Your task to perform on an android device: Show the shopping cart on walmart. Add "amazon basics triple a" to the cart on walmart, then select checkout. Image 0: 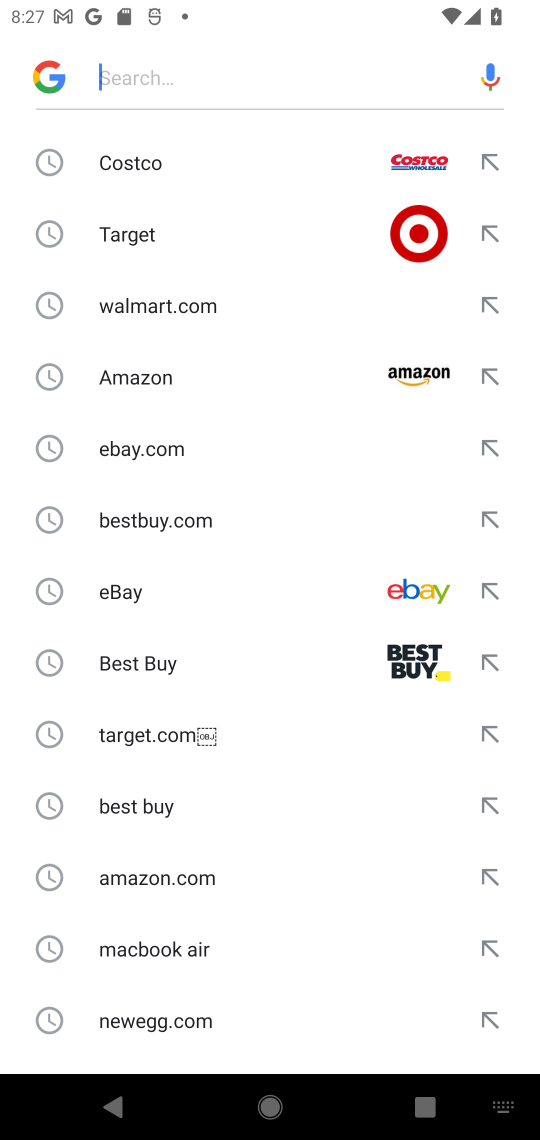
Step 0: press home button
Your task to perform on an android device: Show the shopping cart on walmart. Add "amazon basics triple a" to the cart on walmart, then select checkout. Image 1: 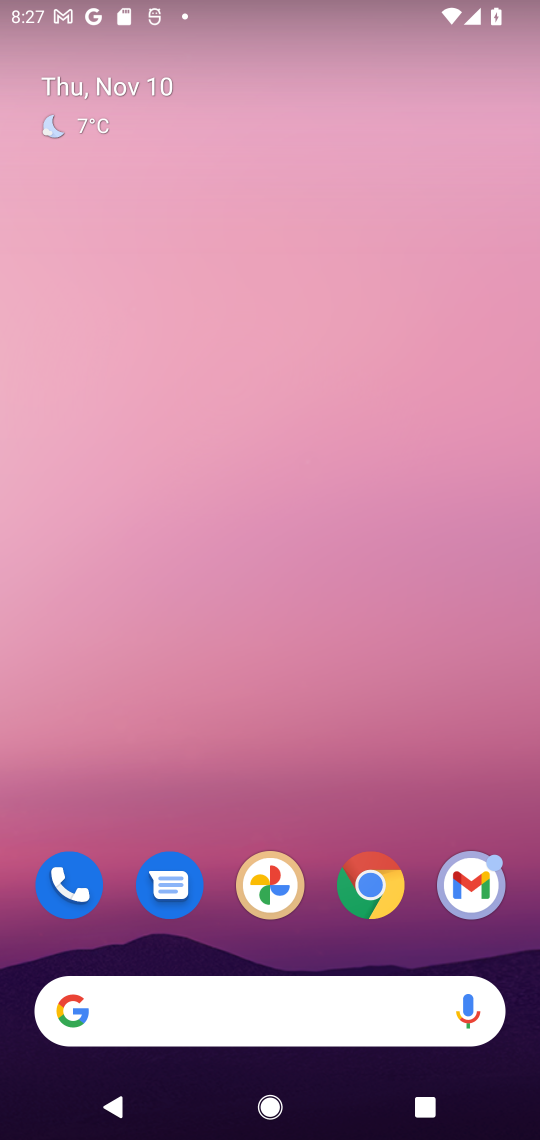
Step 1: click (380, 875)
Your task to perform on an android device: Show the shopping cart on walmart. Add "amazon basics triple a" to the cart on walmart, then select checkout. Image 2: 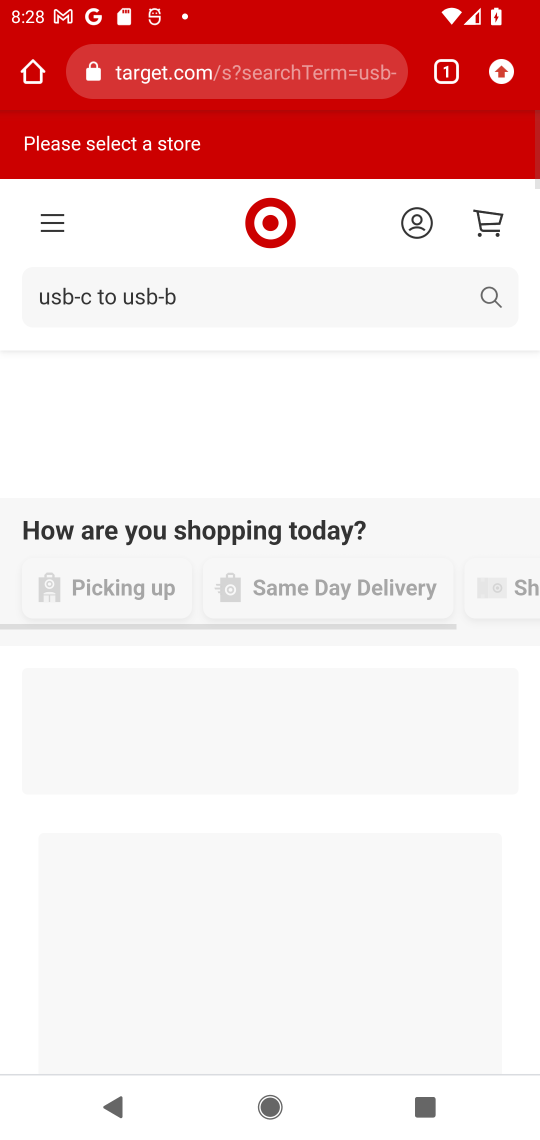
Step 2: click (334, 73)
Your task to perform on an android device: Show the shopping cart on walmart. Add "amazon basics triple a" to the cart on walmart, then select checkout. Image 3: 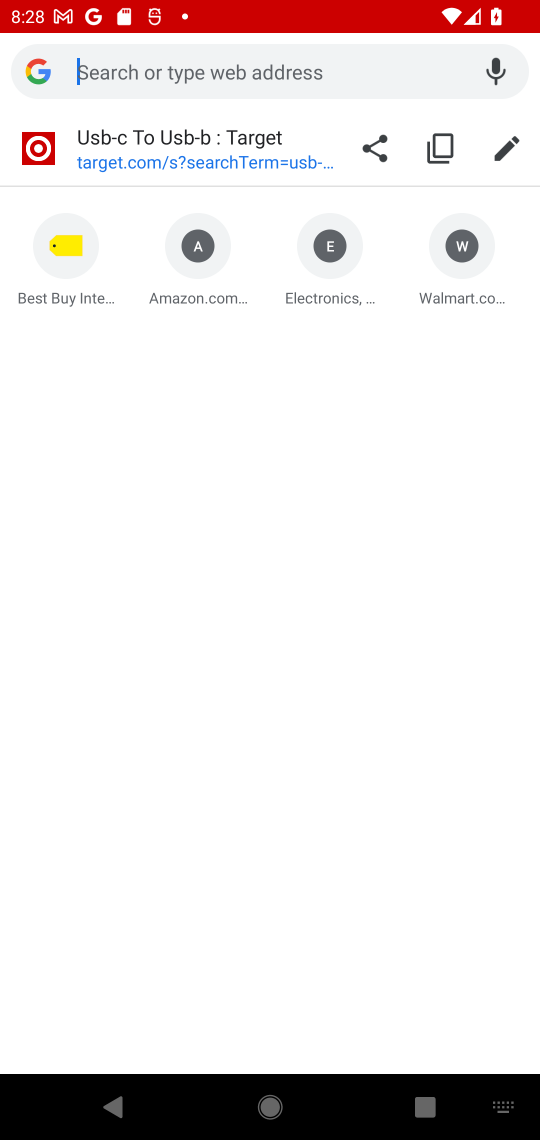
Step 3: click (453, 247)
Your task to perform on an android device: Show the shopping cart on walmart. Add "amazon basics triple a" to the cart on walmart, then select checkout. Image 4: 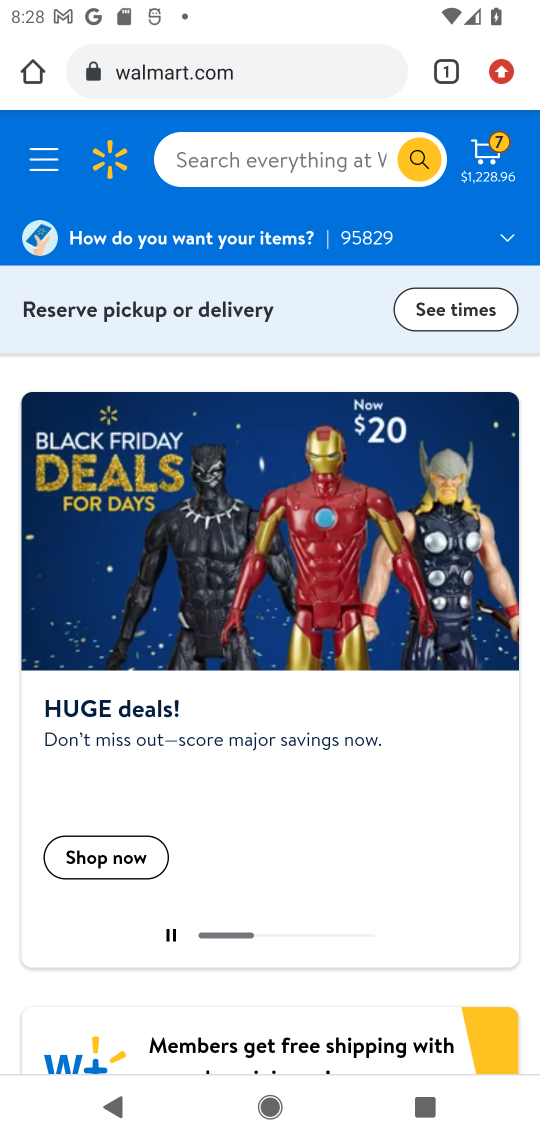
Step 4: click (477, 161)
Your task to perform on an android device: Show the shopping cart on walmart. Add "amazon basics triple a" to the cart on walmart, then select checkout. Image 5: 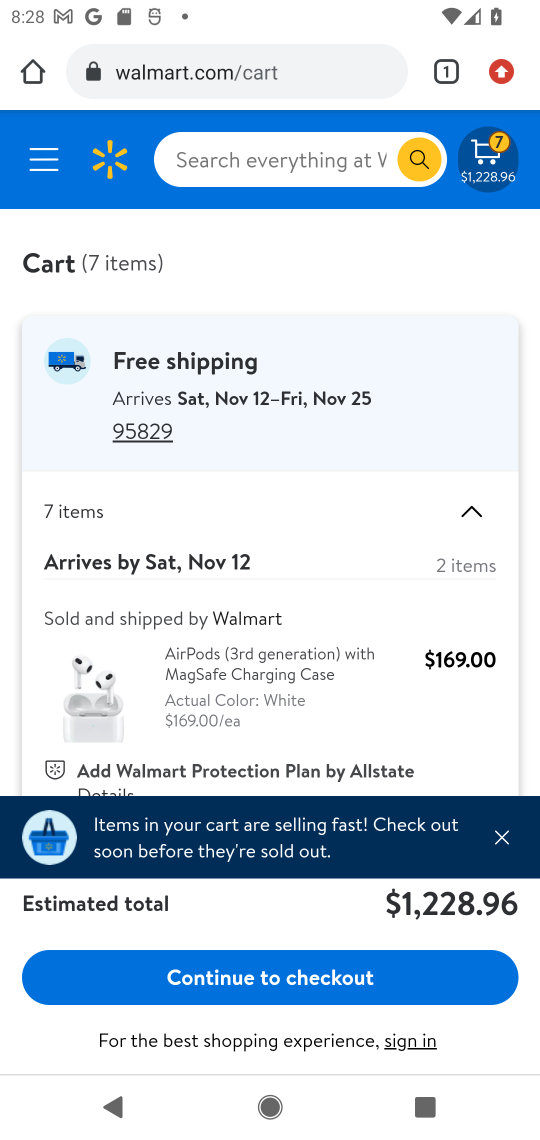
Step 5: click (328, 156)
Your task to perform on an android device: Show the shopping cart on walmart. Add "amazon basics triple a" to the cart on walmart, then select checkout. Image 6: 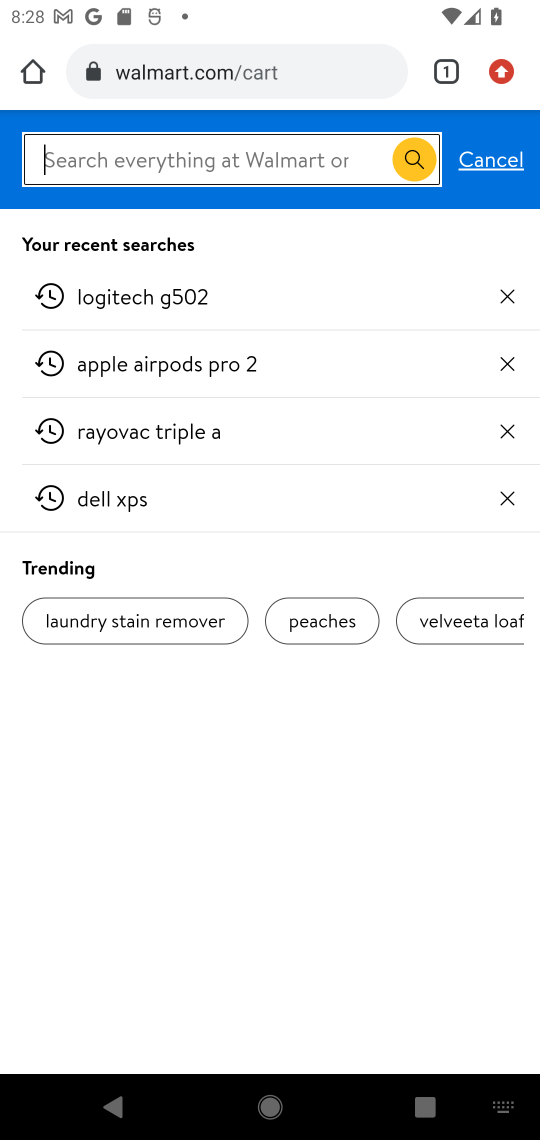
Step 6: type "amazon basics triple a"
Your task to perform on an android device: Show the shopping cart on walmart. Add "amazon basics triple a" to the cart on walmart, then select checkout. Image 7: 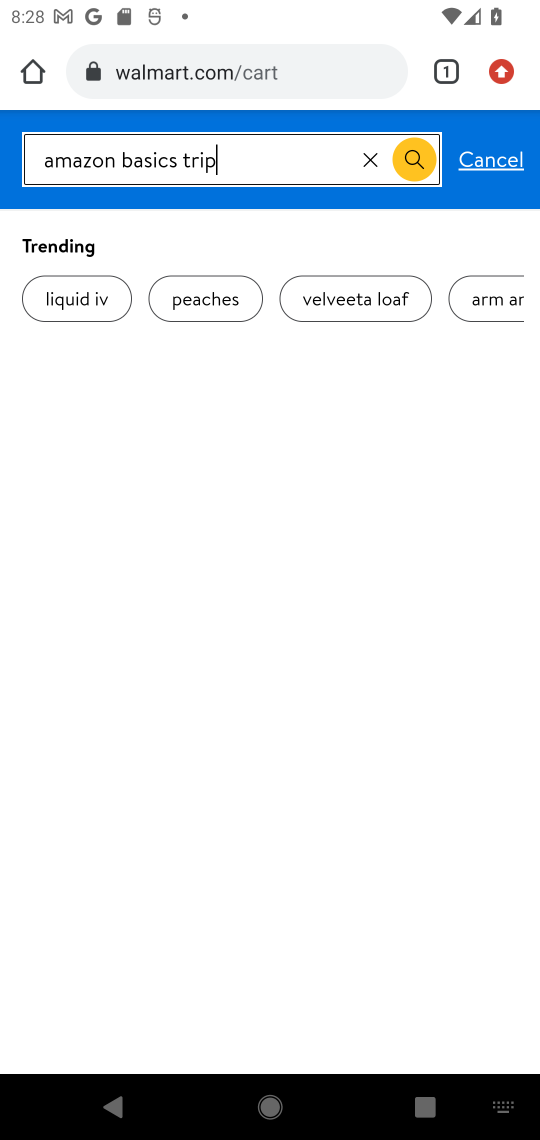
Step 7: press enter
Your task to perform on an android device: Show the shopping cart on walmart. Add "amazon basics triple a" to the cart on walmart, then select checkout. Image 8: 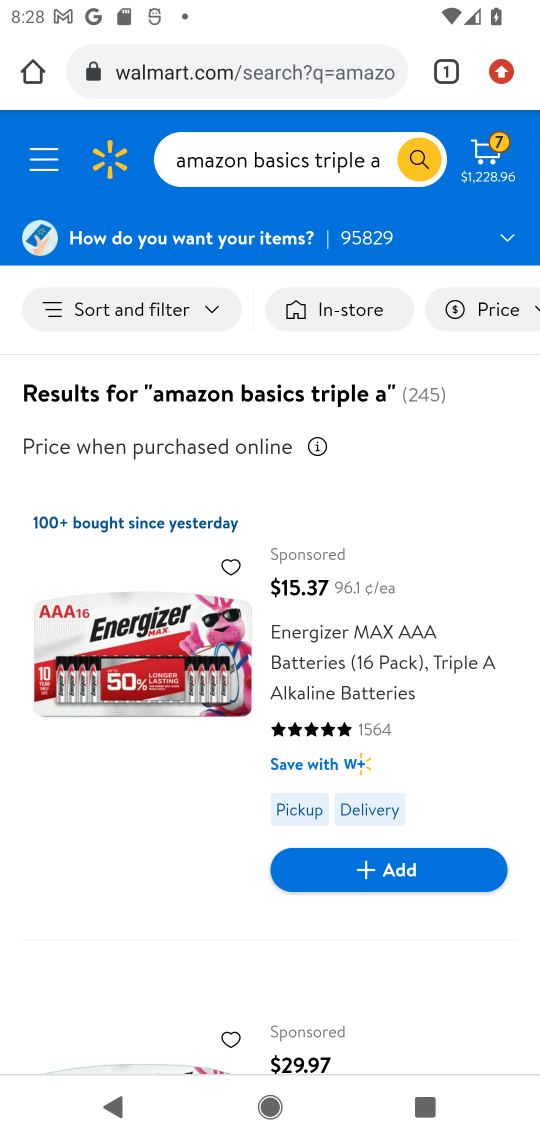
Step 8: task complete